Your task to perform on an android device: Go to ESPN.com Image 0: 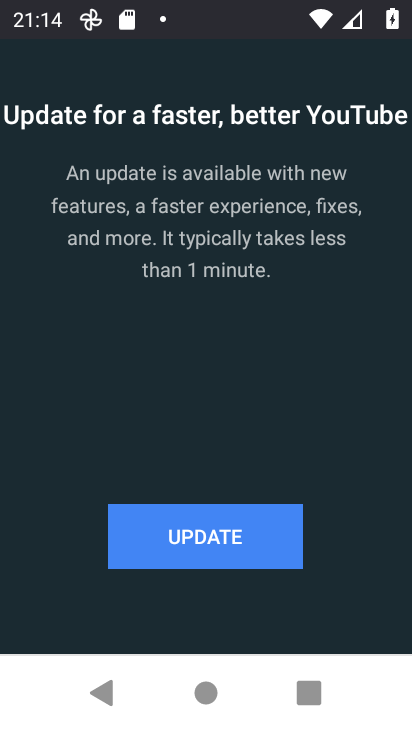
Step 0: press home button
Your task to perform on an android device: Go to ESPN.com Image 1: 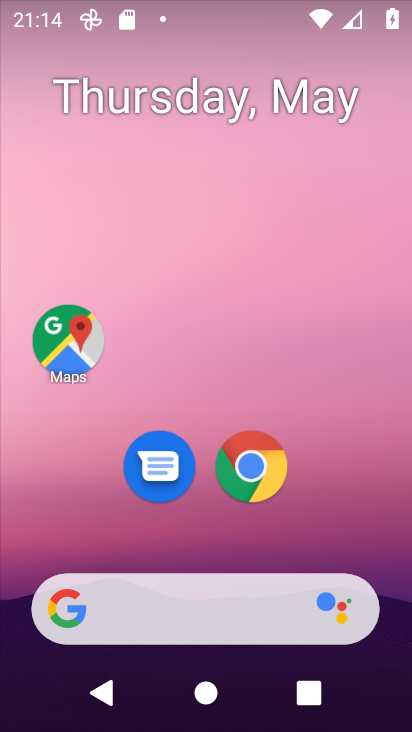
Step 1: click (253, 611)
Your task to perform on an android device: Go to ESPN.com Image 2: 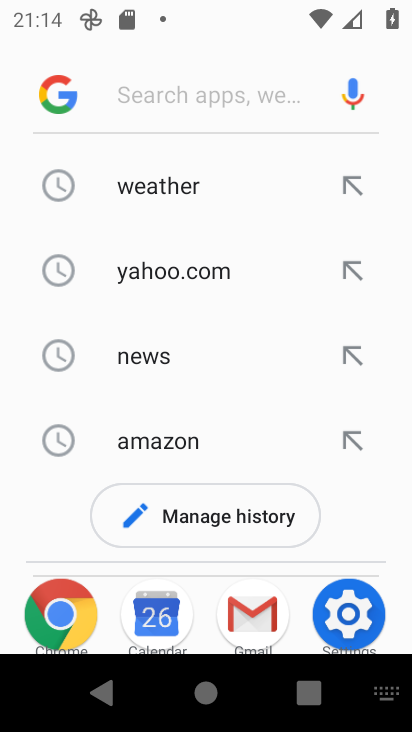
Step 2: type "espn.com"
Your task to perform on an android device: Go to ESPN.com Image 3: 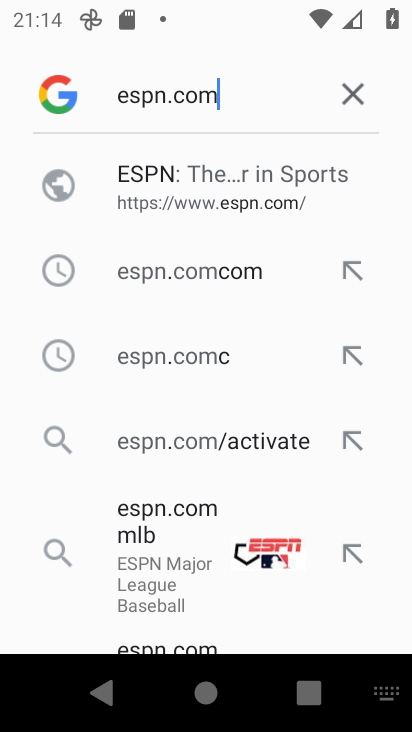
Step 3: click (153, 178)
Your task to perform on an android device: Go to ESPN.com Image 4: 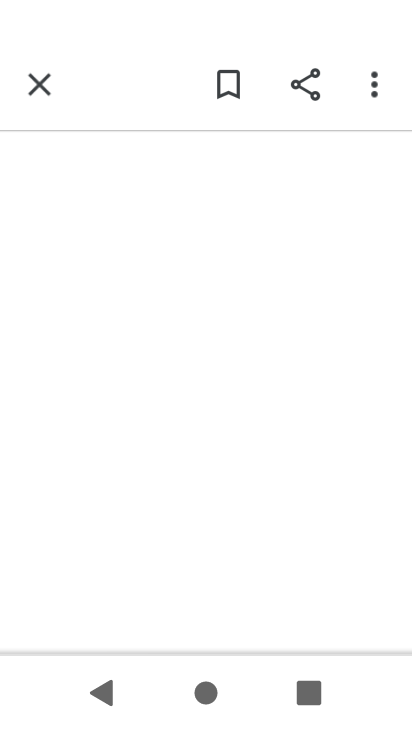
Step 4: task complete